Your task to perform on an android device: turn off improve location accuracy Image 0: 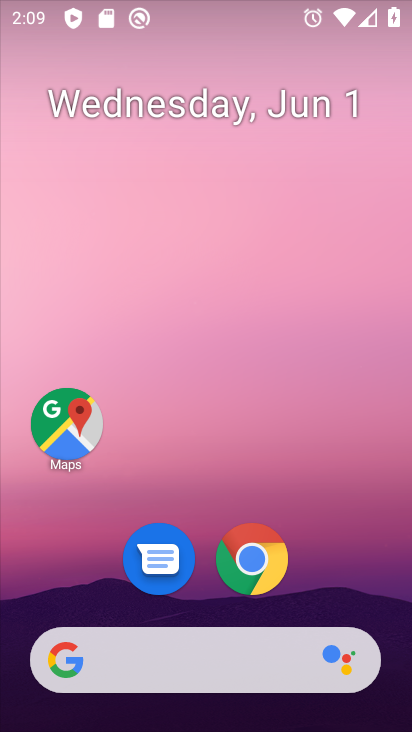
Step 0: press home button
Your task to perform on an android device: turn off improve location accuracy Image 1: 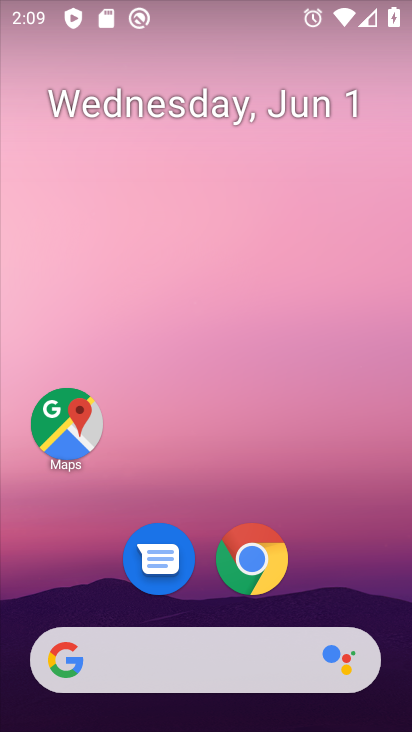
Step 1: drag from (332, 477) to (315, 138)
Your task to perform on an android device: turn off improve location accuracy Image 2: 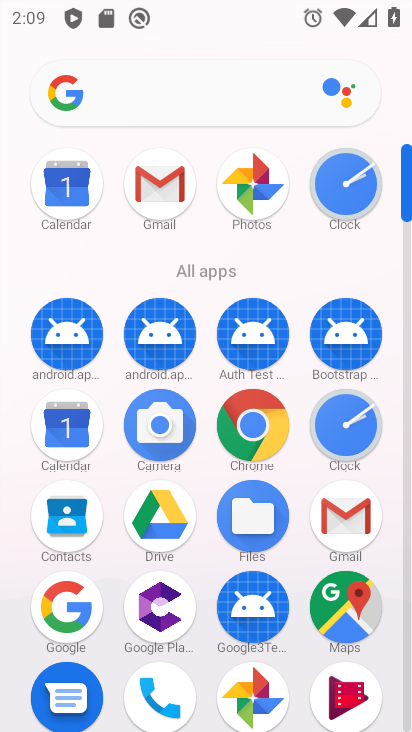
Step 2: drag from (384, 568) to (393, 80)
Your task to perform on an android device: turn off improve location accuracy Image 3: 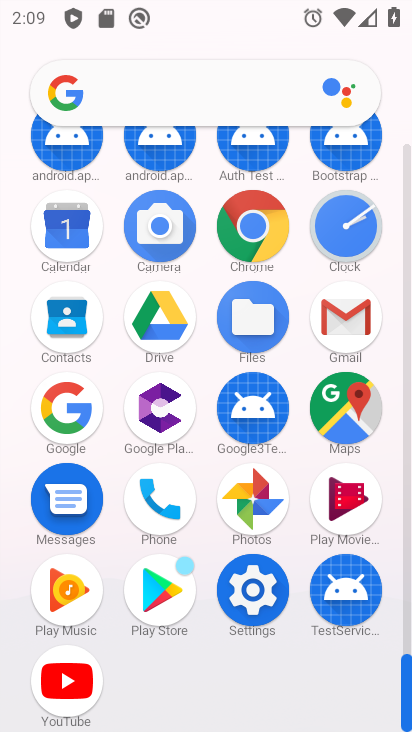
Step 3: click (253, 589)
Your task to perform on an android device: turn off improve location accuracy Image 4: 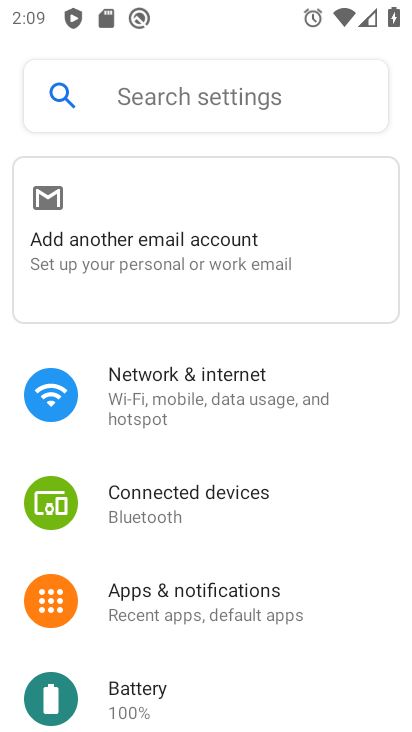
Step 4: drag from (348, 612) to (348, 213)
Your task to perform on an android device: turn off improve location accuracy Image 5: 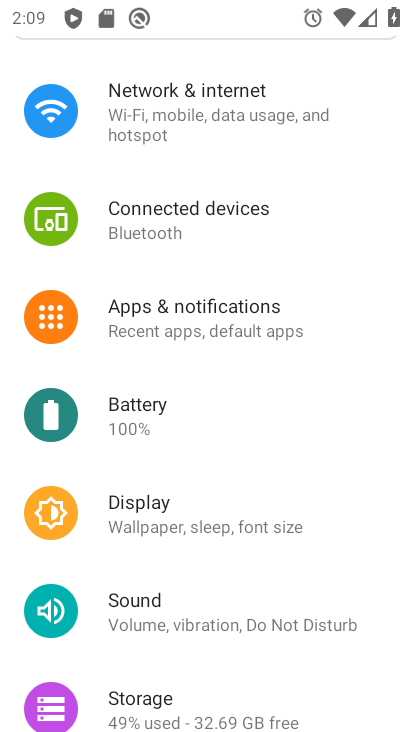
Step 5: drag from (345, 529) to (312, 152)
Your task to perform on an android device: turn off improve location accuracy Image 6: 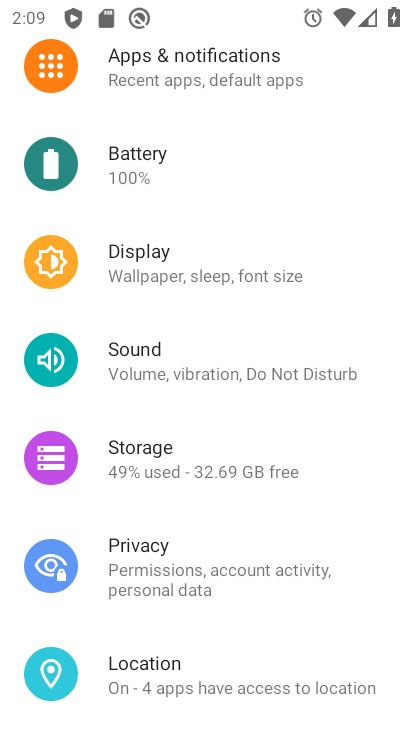
Step 6: click (146, 674)
Your task to perform on an android device: turn off improve location accuracy Image 7: 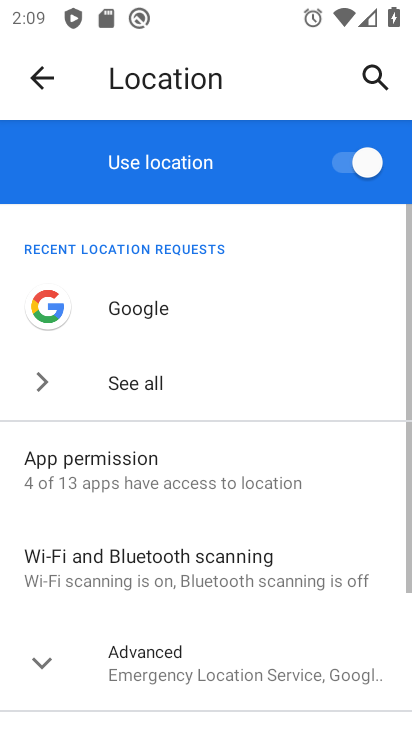
Step 7: click (42, 661)
Your task to perform on an android device: turn off improve location accuracy Image 8: 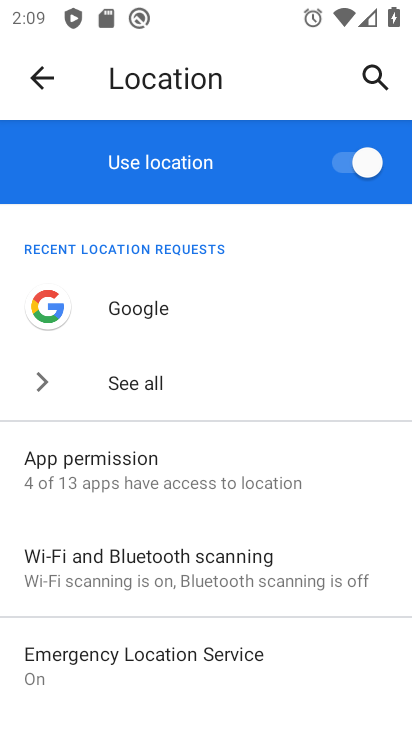
Step 8: drag from (316, 647) to (314, 211)
Your task to perform on an android device: turn off improve location accuracy Image 9: 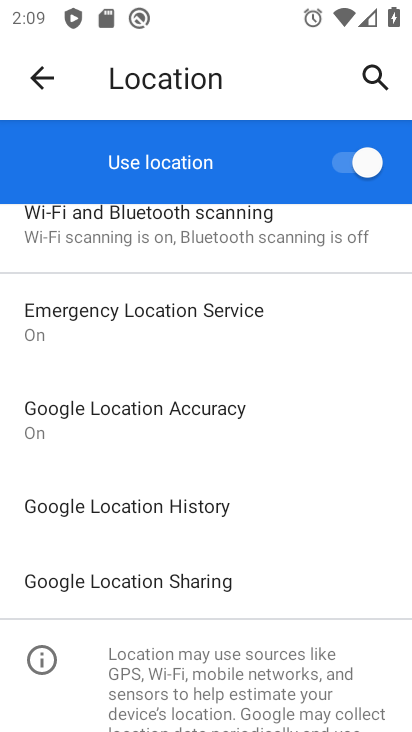
Step 9: click (167, 406)
Your task to perform on an android device: turn off improve location accuracy Image 10: 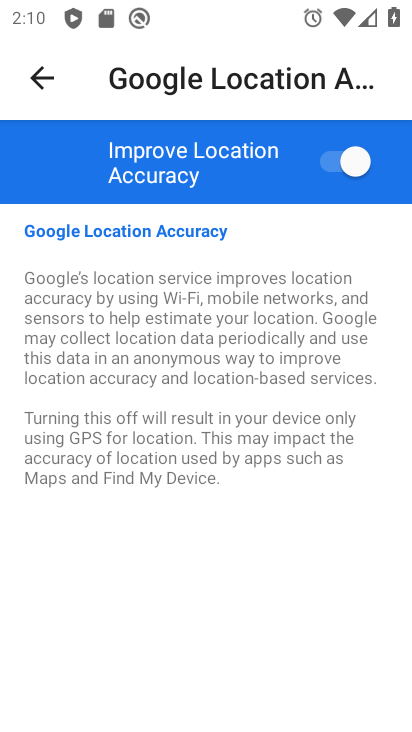
Step 10: click (365, 159)
Your task to perform on an android device: turn off improve location accuracy Image 11: 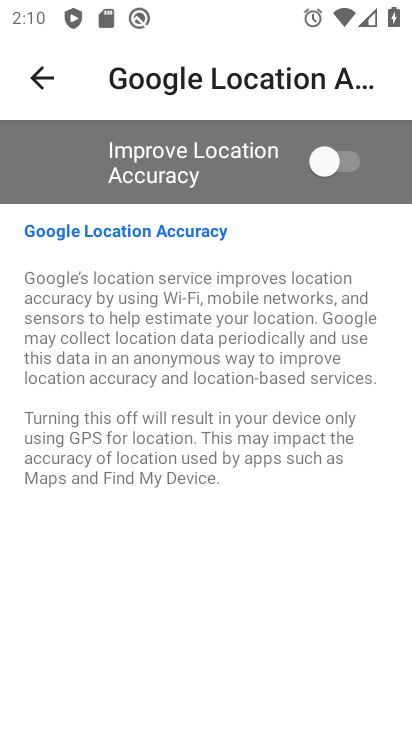
Step 11: task complete